Your task to perform on an android device: set default search engine in the chrome app Image 0: 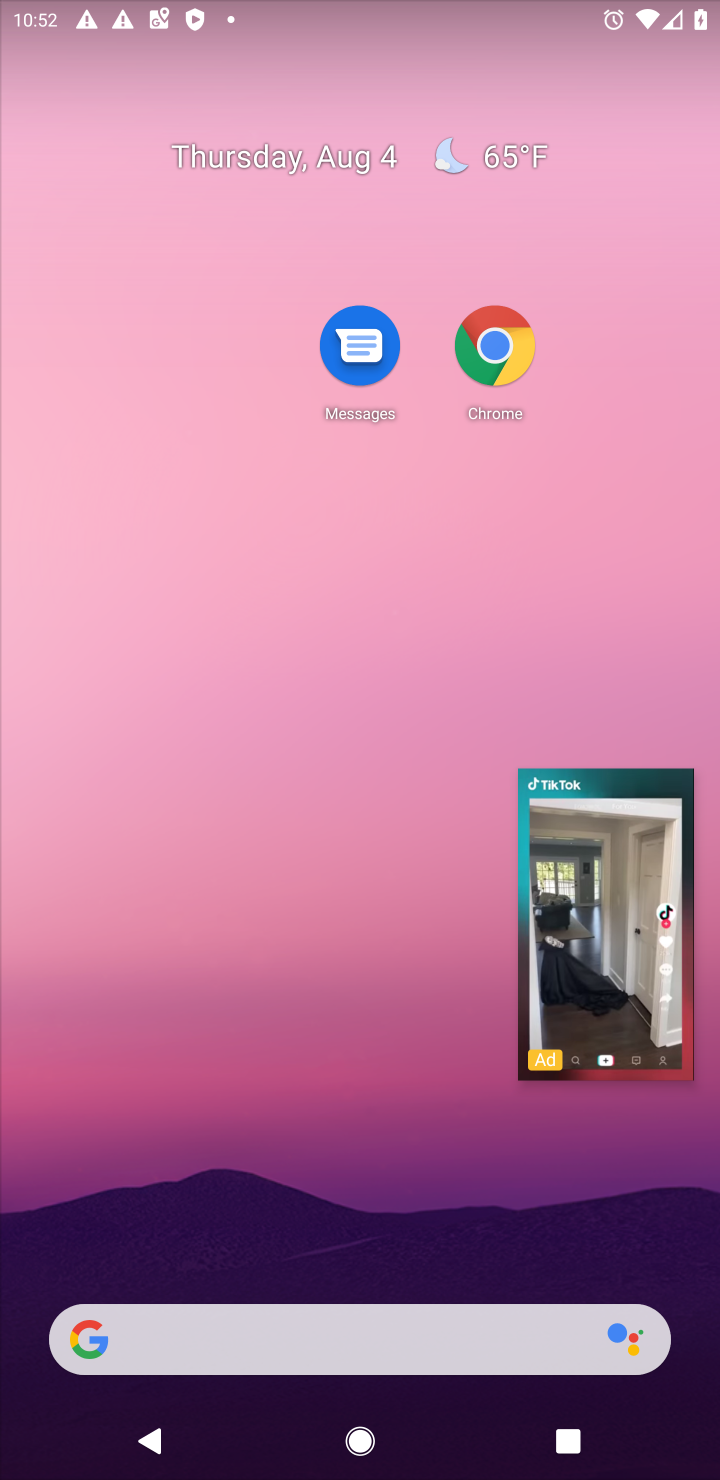
Step 0: click (287, 75)
Your task to perform on an android device: set default search engine in the chrome app Image 1: 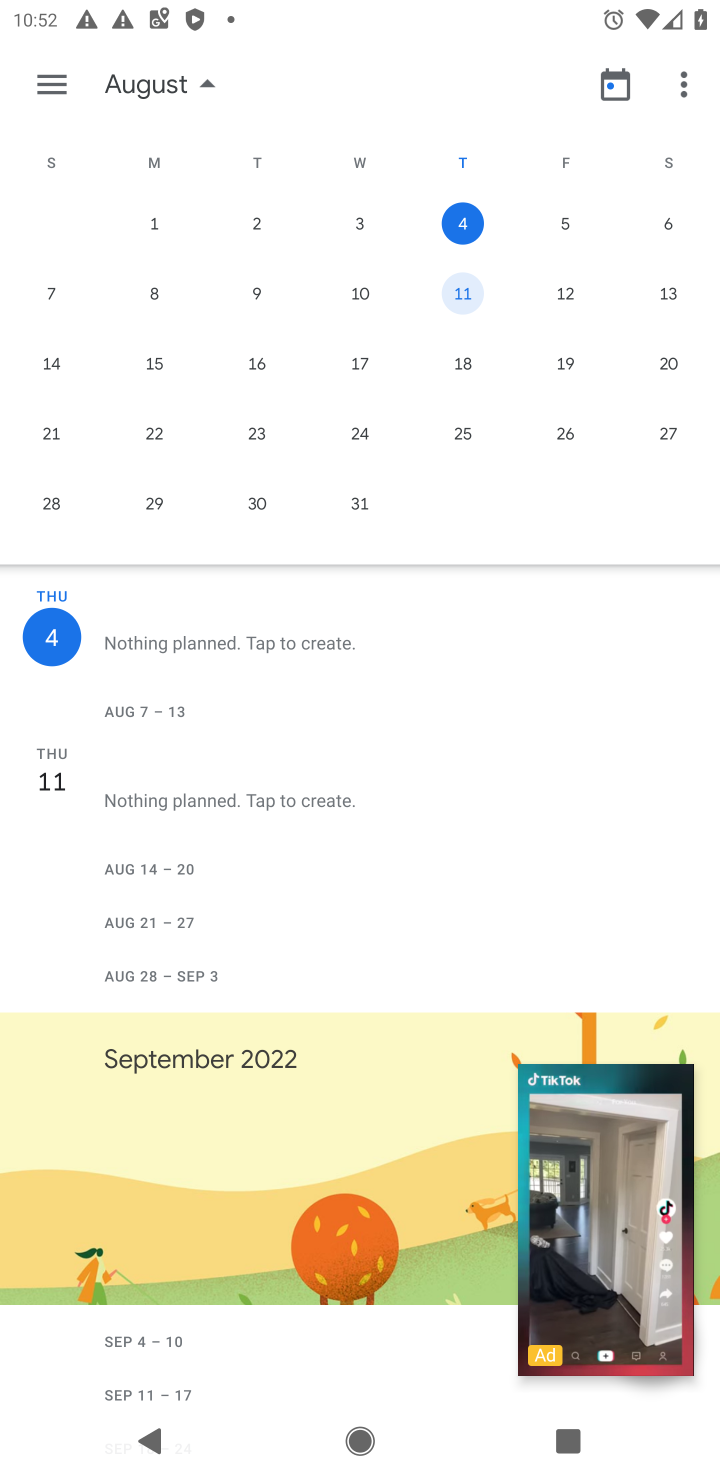
Step 1: press home button
Your task to perform on an android device: set default search engine in the chrome app Image 2: 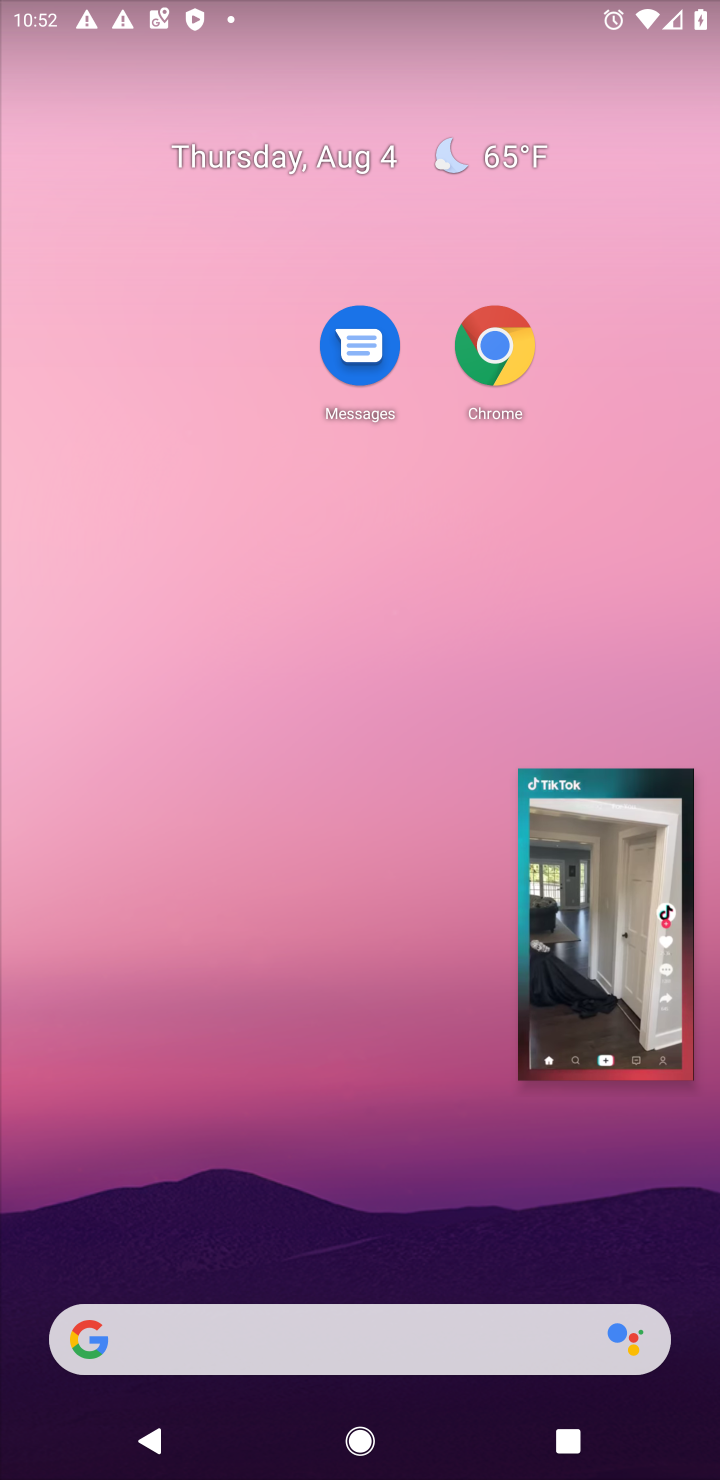
Step 2: drag from (333, 1169) to (396, 147)
Your task to perform on an android device: set default search engine in the chrome app Image 3: 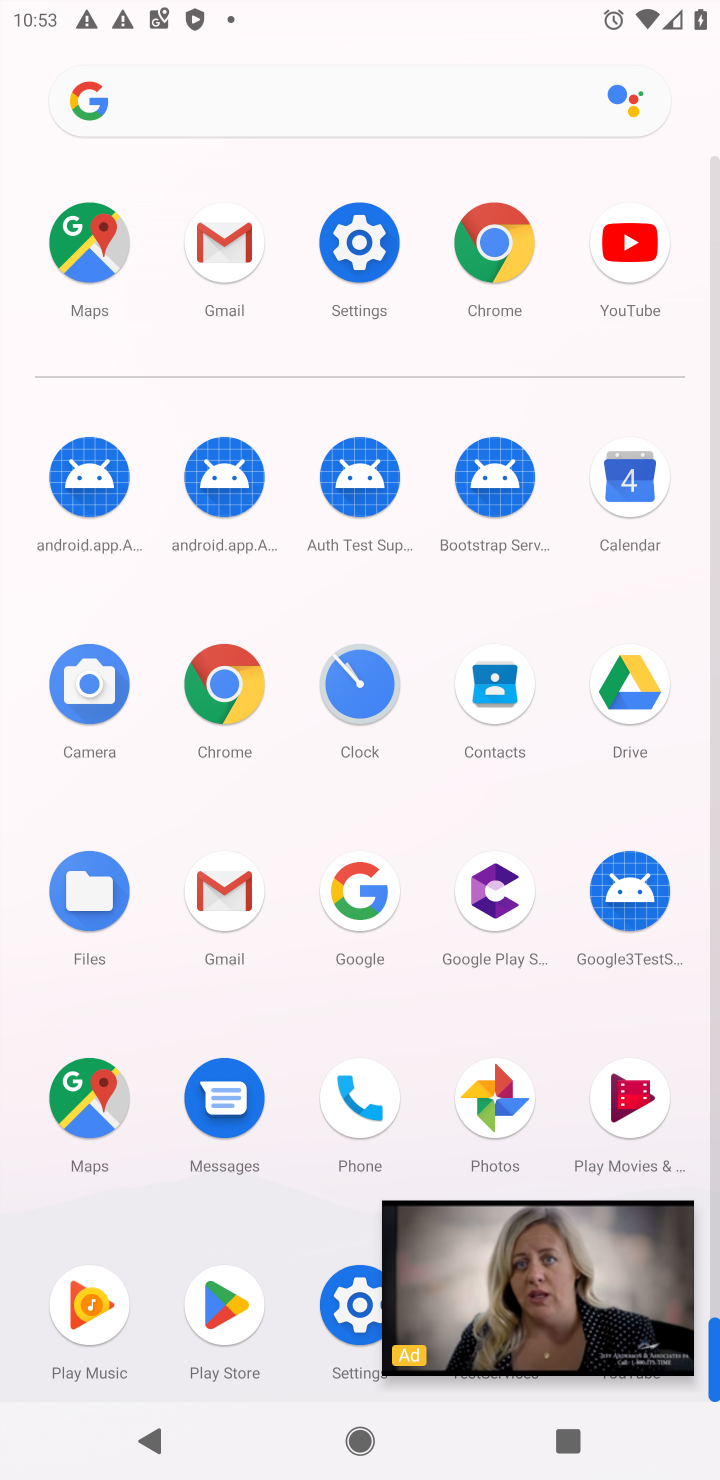
Step 3: click (486, 237)
Your task to perform on an android device: set default search engine in the chrome app Image 4: 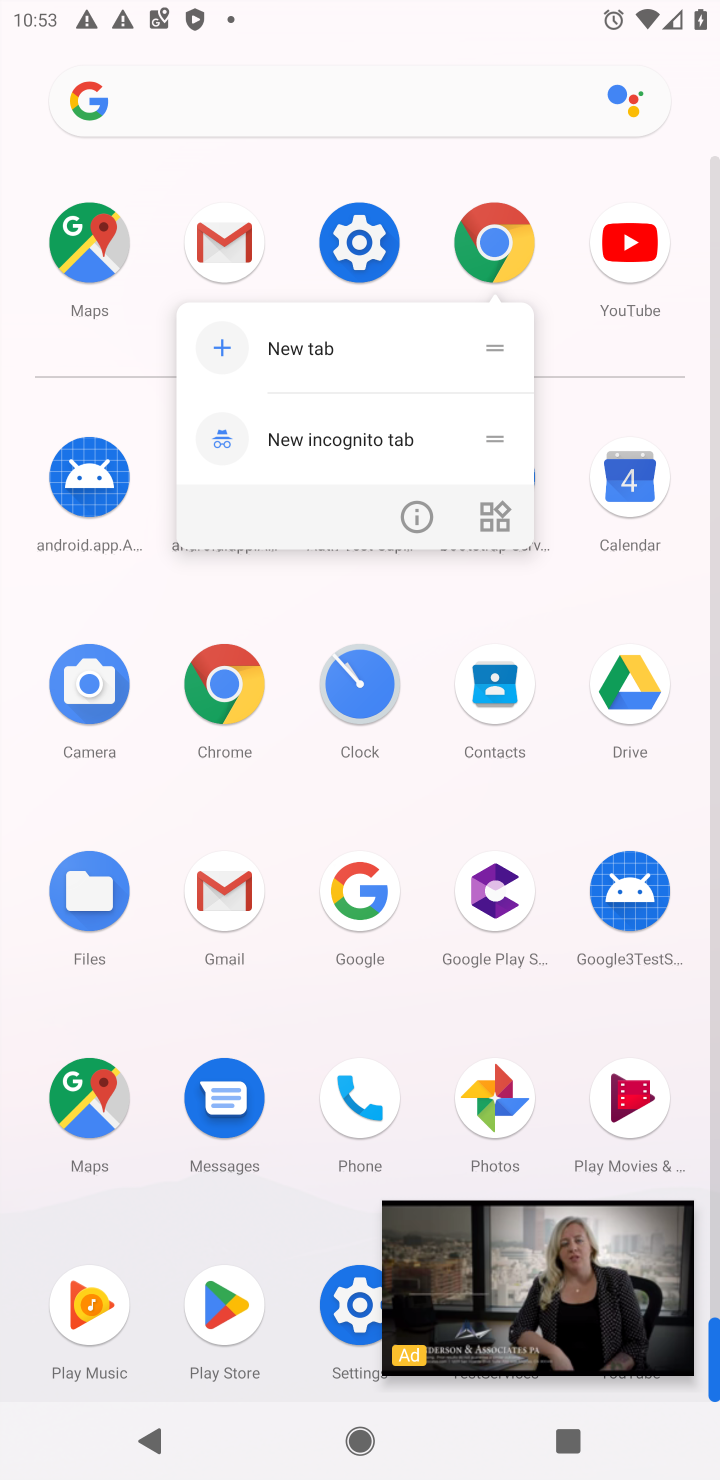
Step 4: click (484, 239)
Your task to perform on an android device: set default search engine in the chrome app Image 5: 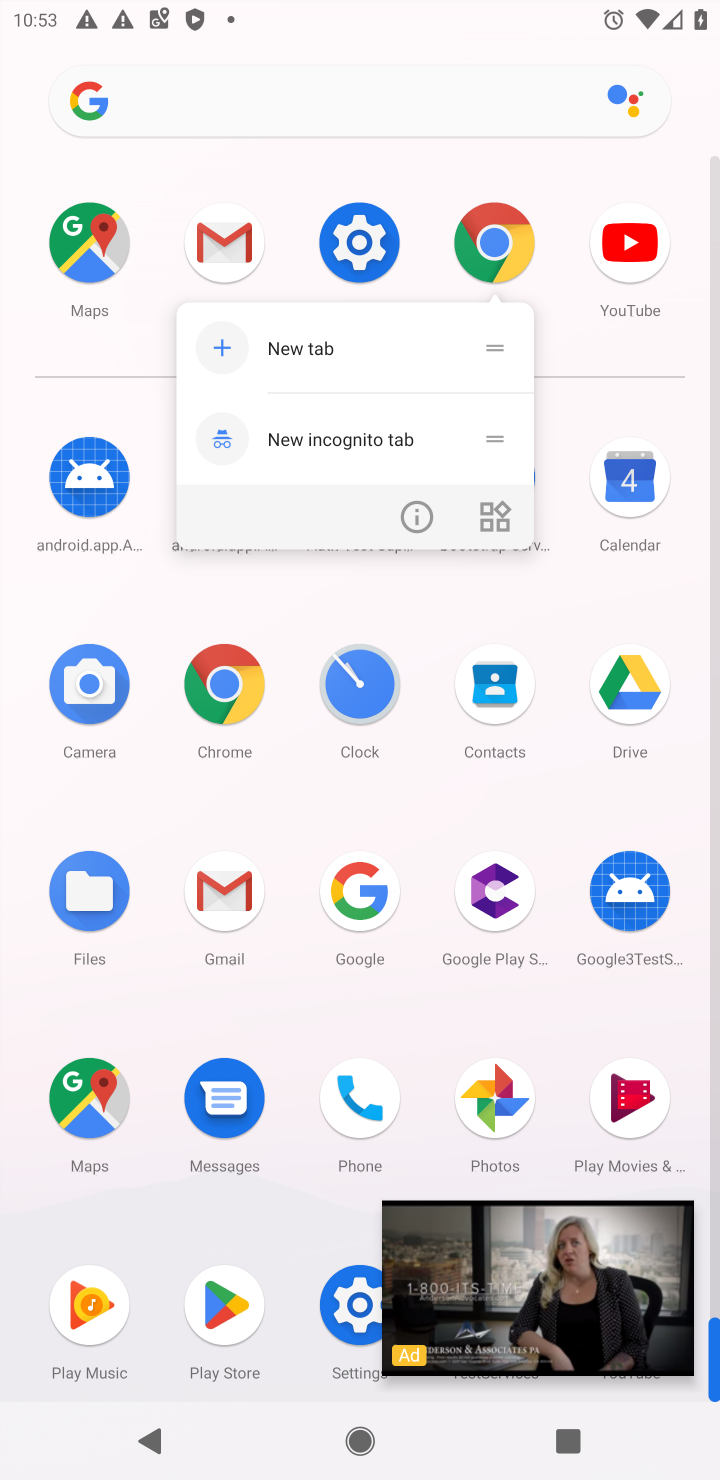
Step 5: click (484, 239)
Your task to perform on an android device: set default search engine in the chrome app Image 6: 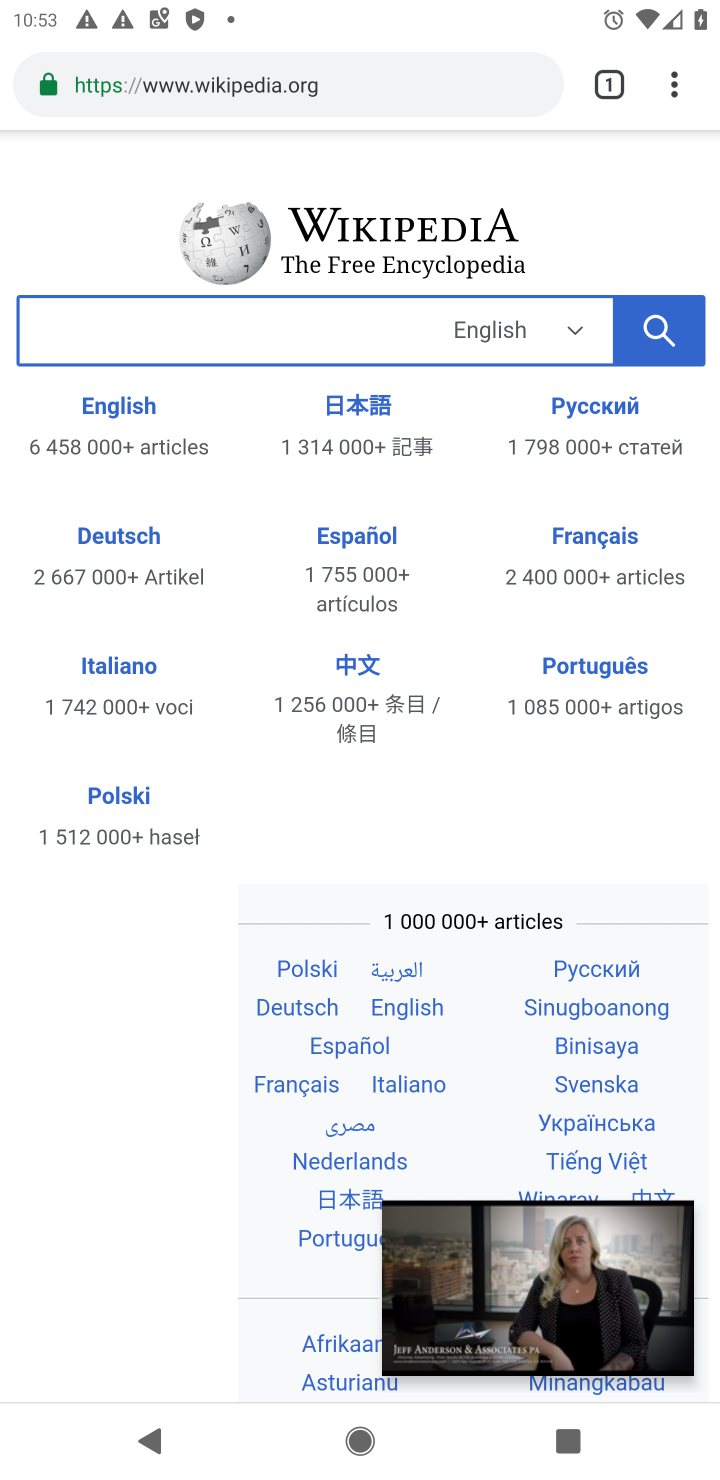
Step 6: drag from (675, 84) to (390, 959)
Your task to perform on an android device: set default search engine in the chrome app Image 7: 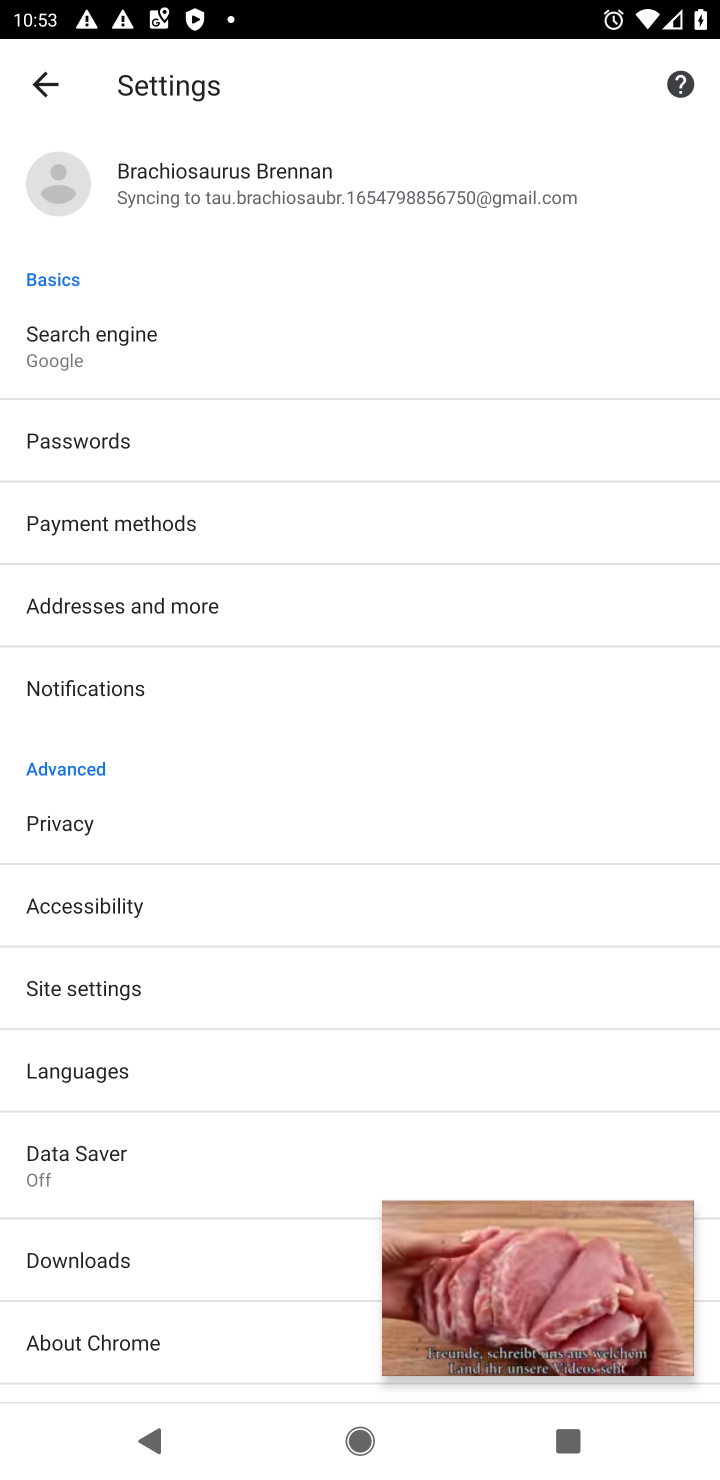
Step 7: click (149, 350)
Your task to perform on an android device: set default search engine in the chrome app Image 8: 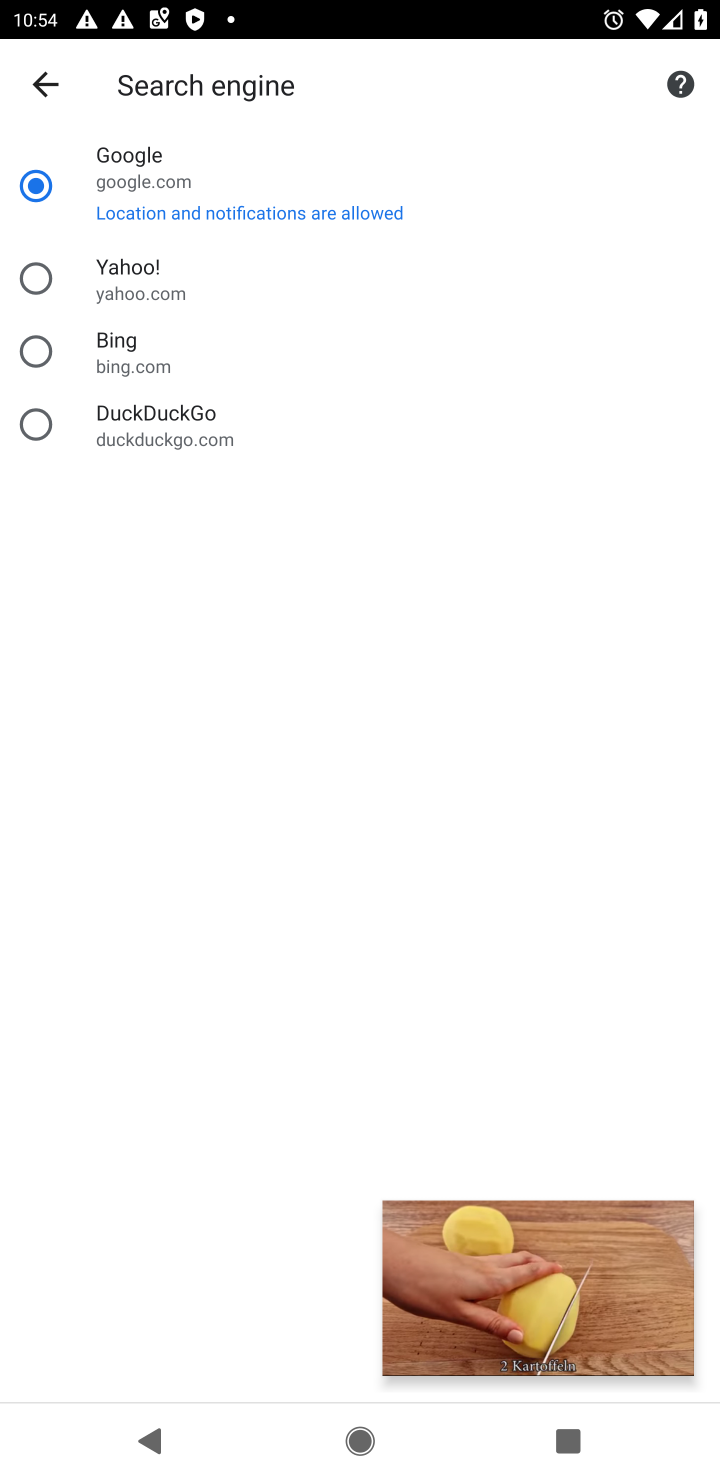
Step 8: task complete